Your task to perform on an android device: Open maps Image 0: 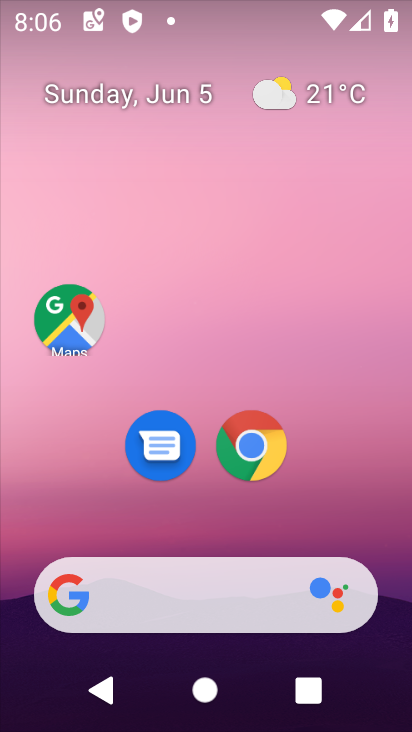
Step 0: click (63, 318)
Your task to perform on an android device: Open maps Image 1: 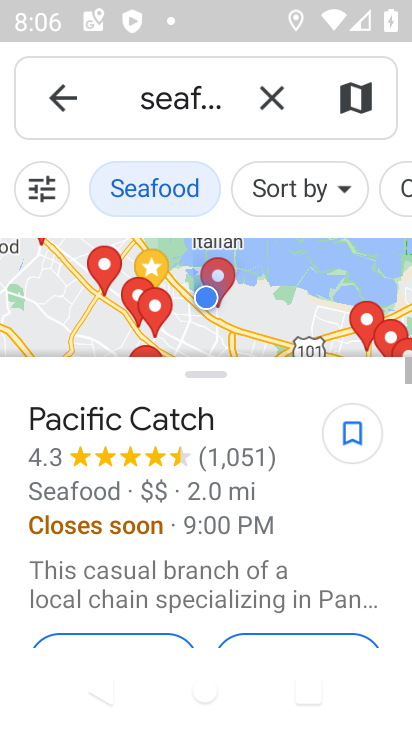
Step 1: click (272, 93)
Your task to perform on an android device: Open maps Image 2: 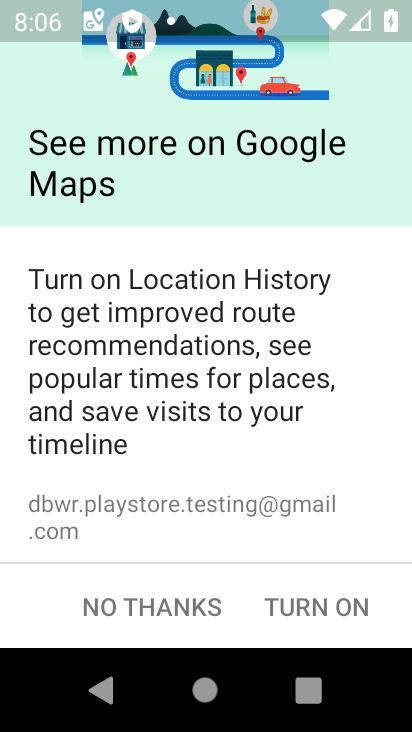
Step 2: click (150, 598)
Your task to perform on an android device: Open maps Image 3: 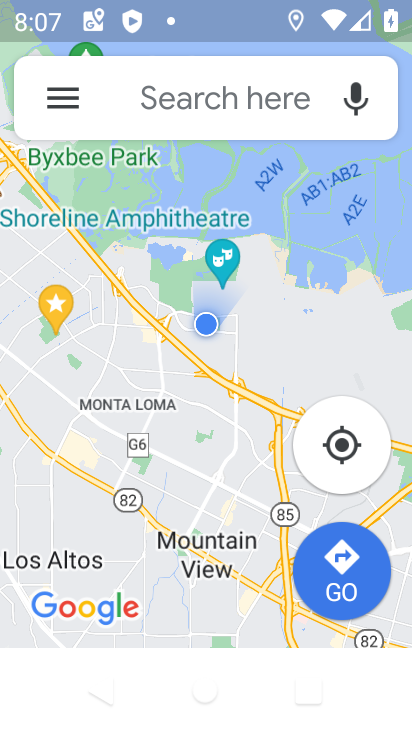
Step 3: task complete